Your task to perform on an android device: turn notification dots on Image 0: 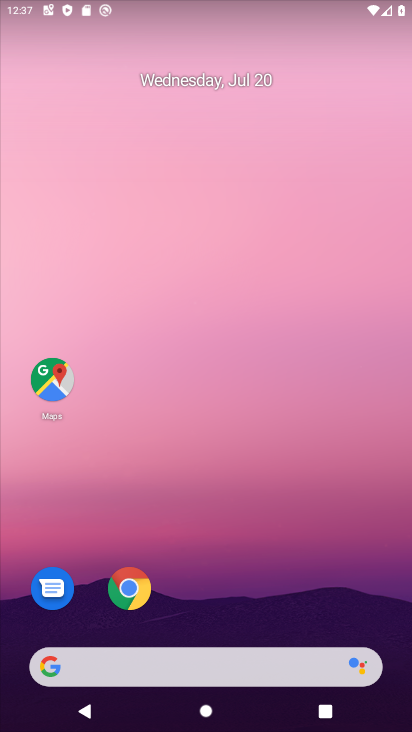
Step 0: drag from (221, 561) to (149, 100)
Your task to perform on an android device: turn notification dots on Image 1: 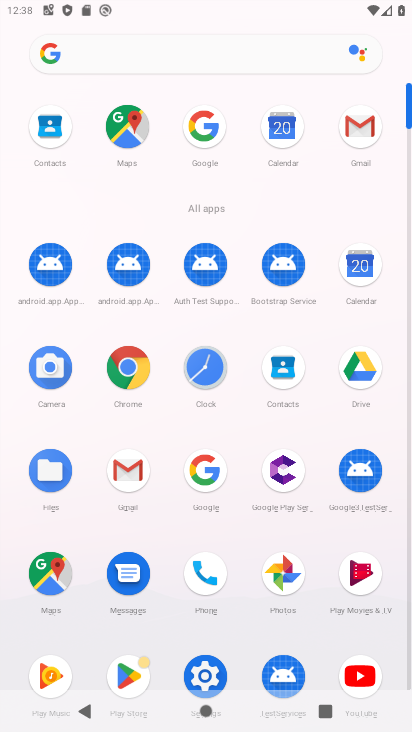
Step 1: click (209, 666)
Your task to perform on an android device: turn notification dots on Image 2: 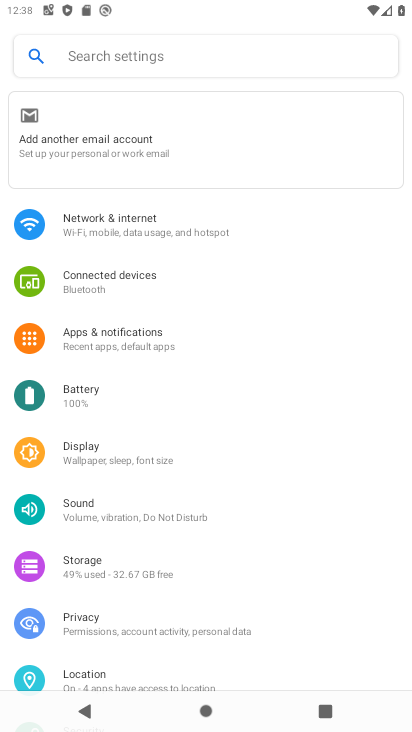
Step 2: click (120, 330)
Your task to perform on an android device: turn notification dots on Image 3: 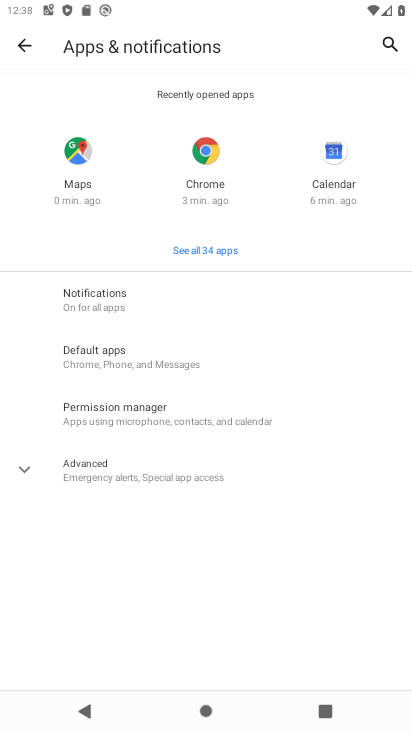
Step 3: click (73, 295)
Your task to perform on an android device: turn notification dots on Image 4: 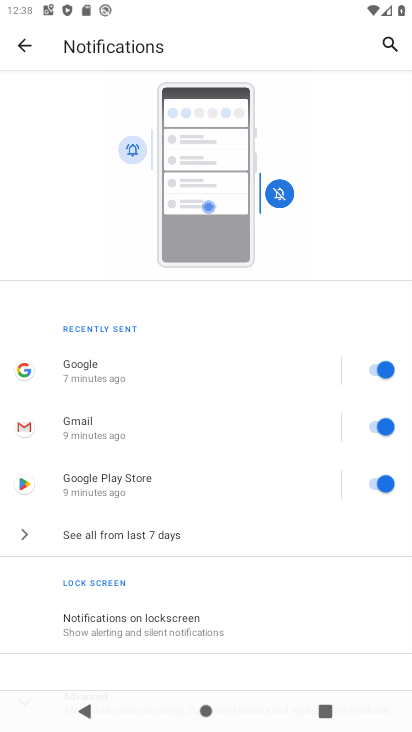
Step 4: click (32, 474)
Your task to perform on an android device: turn notification dots on Image 5: 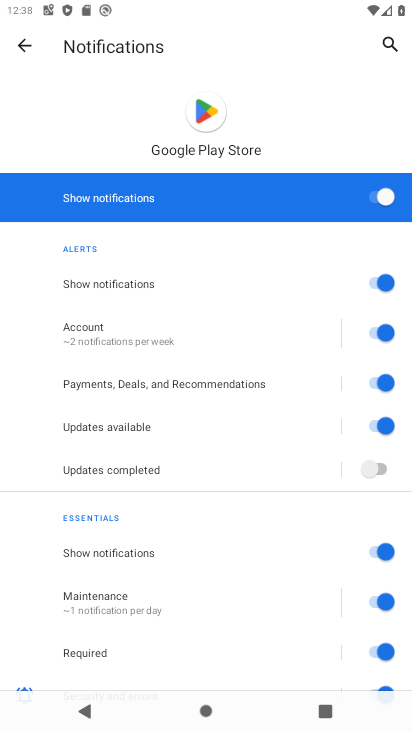
Step 5: click (25, 51)
Your task to perform on an android device: turn notification dots on Image 6: 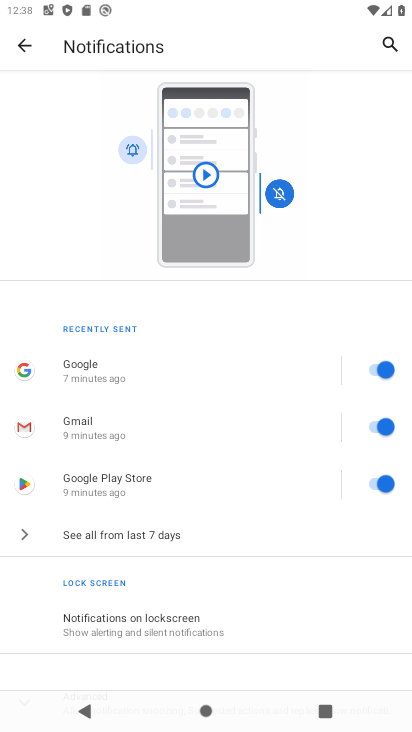
Step 6: drag from (294, 595) to (282, 197)
Your task to perform on an android device: turn notification dots on Image 7: 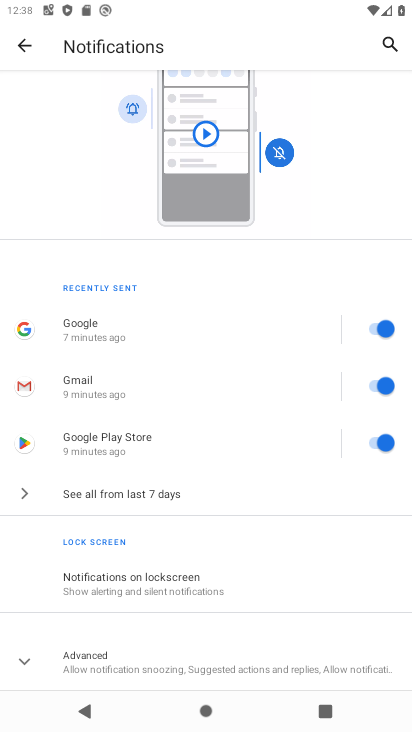
Step 7: click (29, 665)
Your task to perform on an android device: turn notification dots on Image 8: 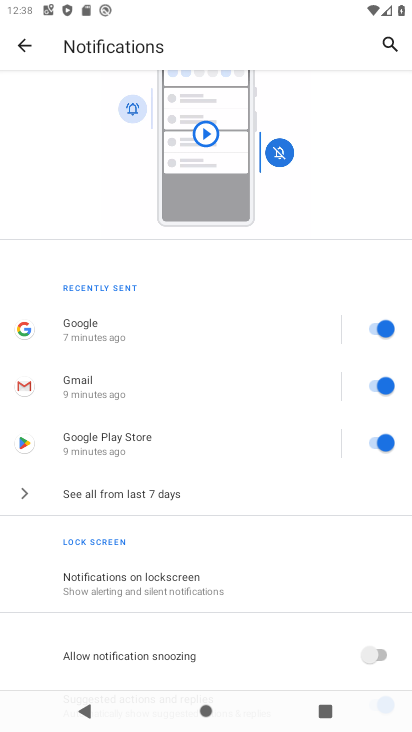
Step 8: task complete